Your task to perform on an android device: Show me the alarms in the clock app Image 0: 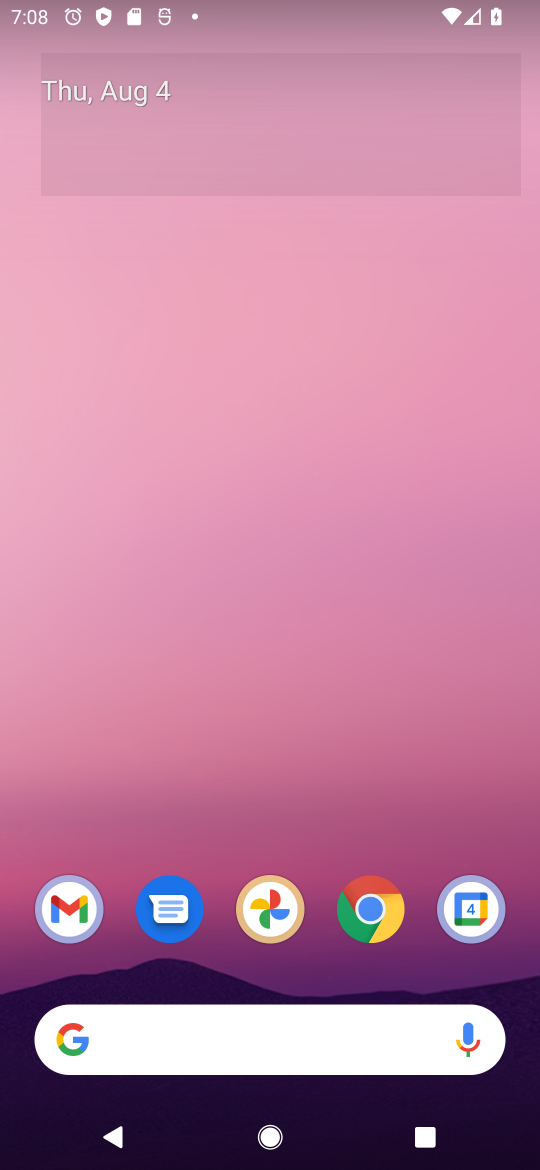
Step 0: drag from (387, 870) to (395, 195)
Your task to perform on an android device: Show me the alarms in the clock app Image 1: 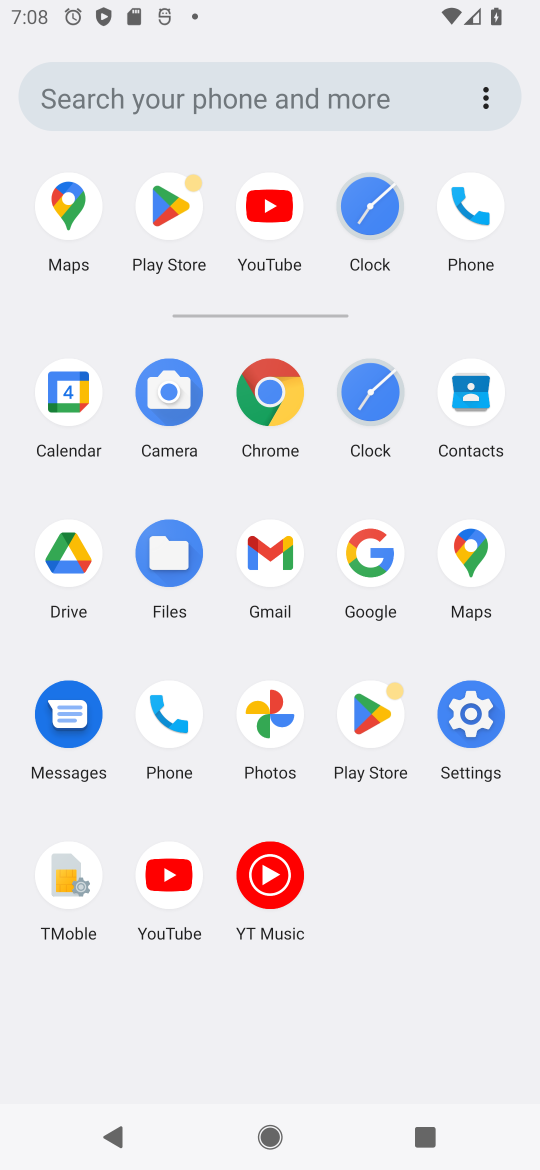
Step 1: click (361, 416)
Your task to perform on an android device: Show me the alarms in the clock app Image 2: 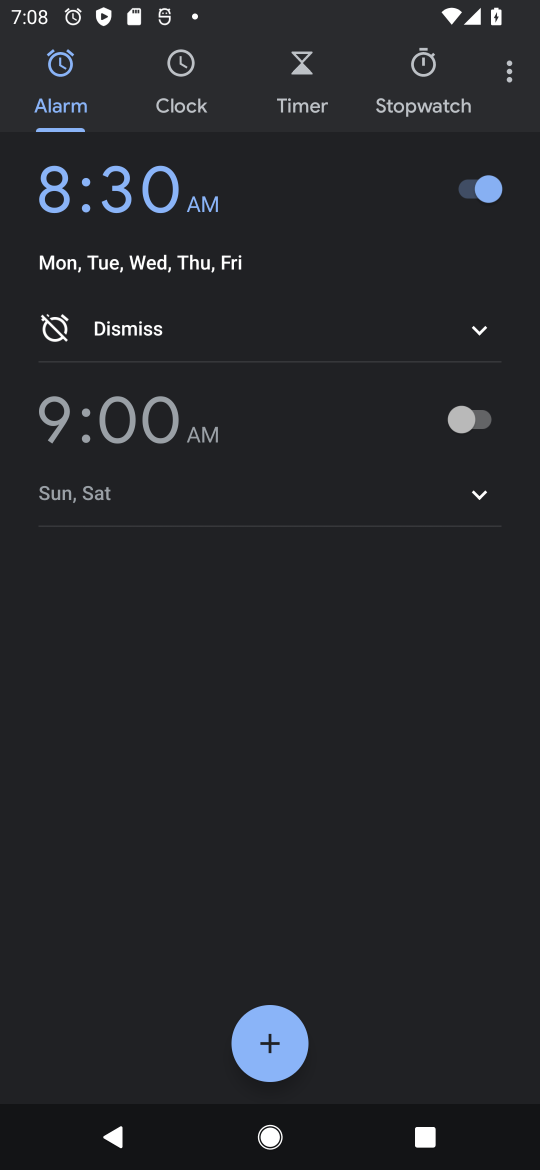
Step 2: click (90, 215)
Your task to perform on an android device: Show me the alarms in the clock app Image 3: 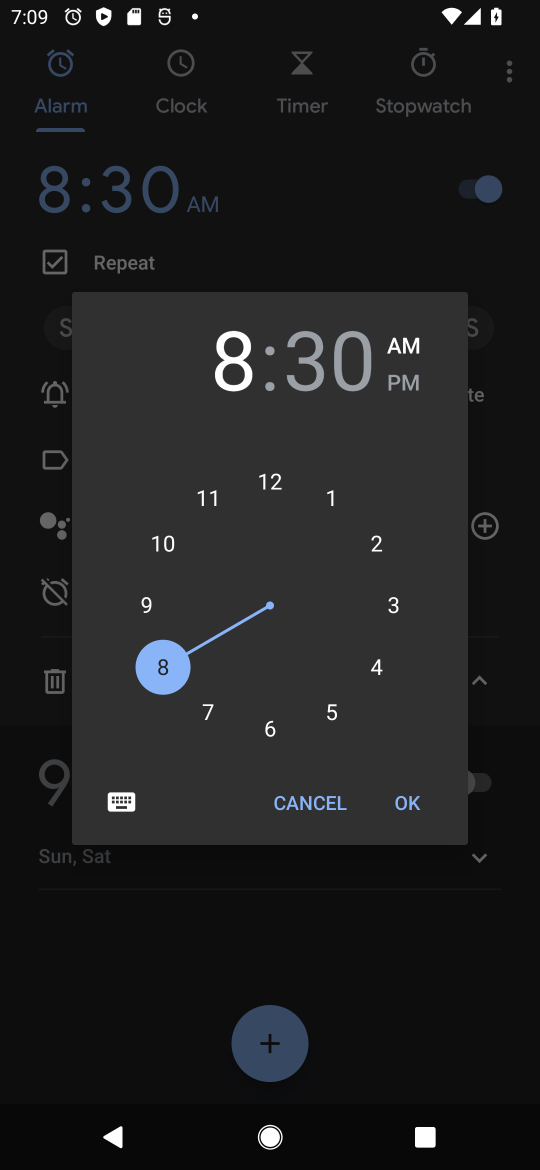
Step 3: task complete